Your task to perform on an android device: Search for bose soundlink mini on newegg.com, select the first entry, and add it to the cart. Image 0: 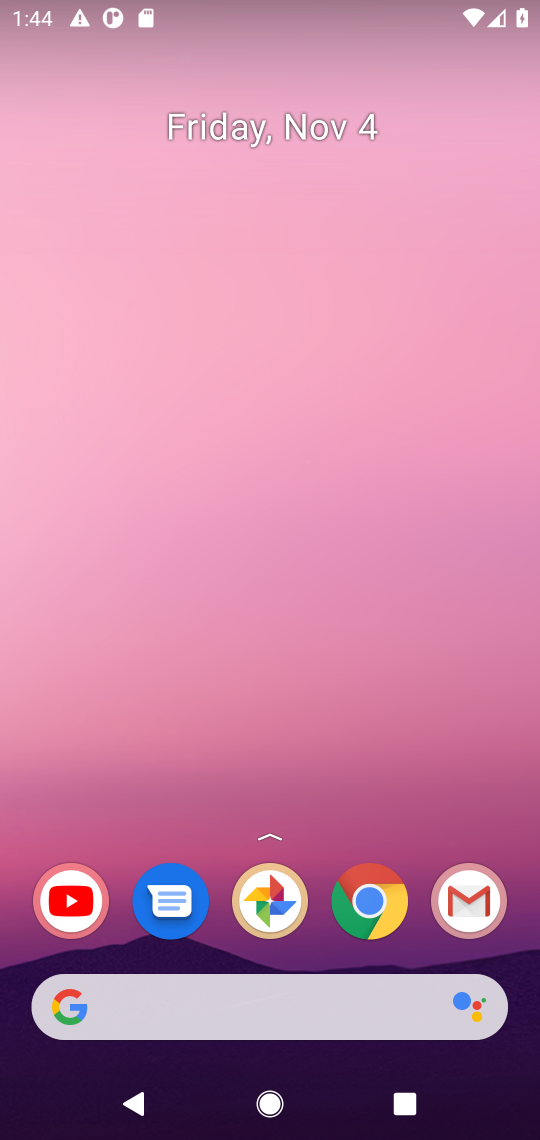
Step 0: click (375, 897)
Your task to perform on an android device: Search for bose soundlink mini on newegg.com, select the first entry, and add it to the cart. Image 1: 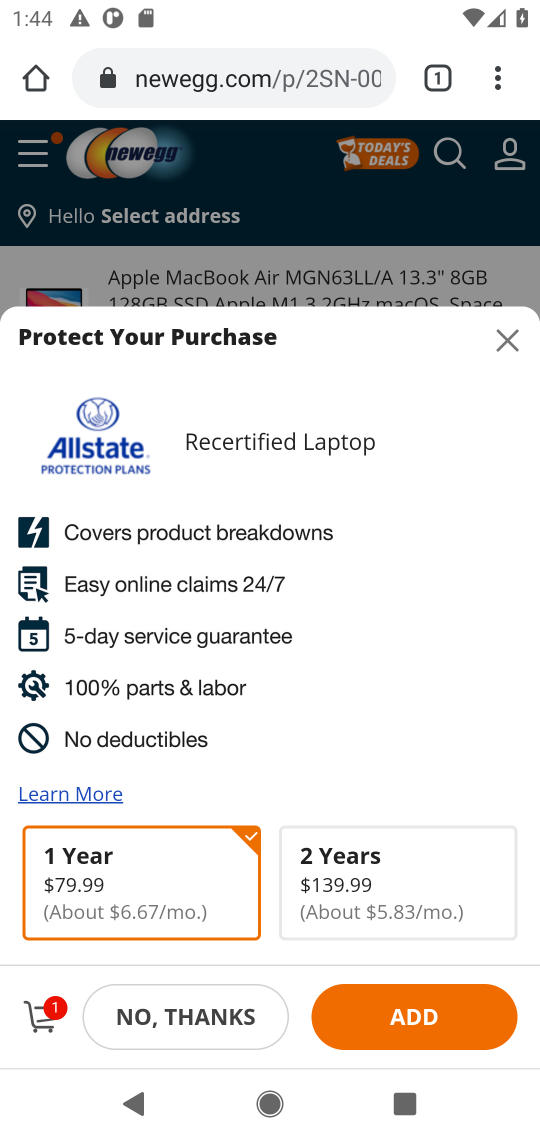
Step 1: click (511, 346)
Your task to perform on an android device: Search for bose soundlink mini on newegg.com, select the first entry, and add it to the cart. Image 2: 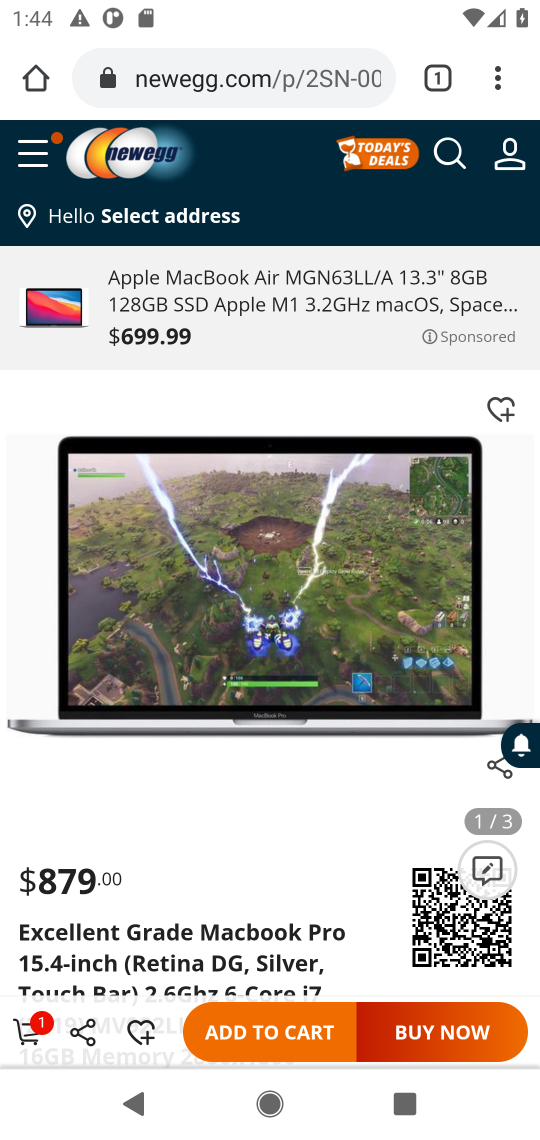
Step 2: drag from (351, 343) to (371, 649)
Your task to perform on an android device: Search for bose soundlink mini on newegg.com, select the first entry, and add it to the cart. Image 3: 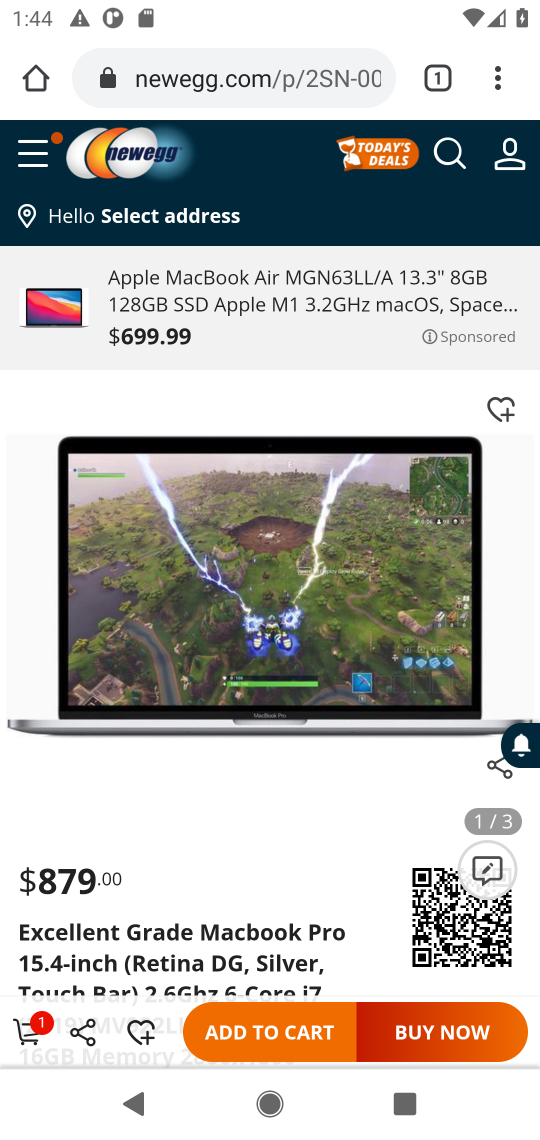
Step 3: click (448, 159)
Your task to perform on an android device: Search for bose soundlink mini on newegg.com, select the first entry, and add it to the cart. Image 4: 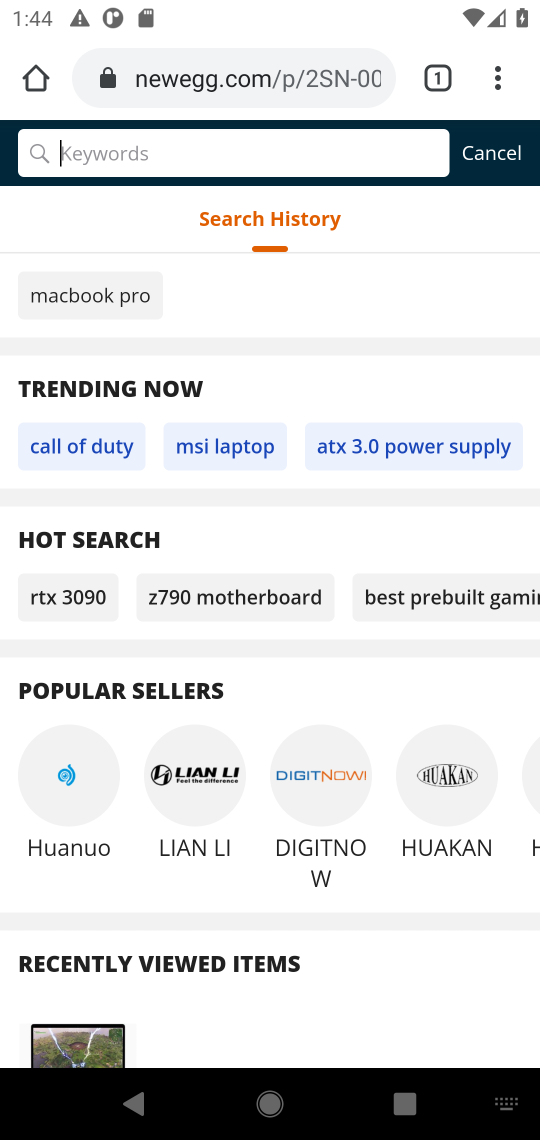
Step 4: type "bose soundlink mini "
Your task to perform on an android device: Search for bose soundlink mini on newegg.com, select the first entry, and add it to the cart. Image 5: 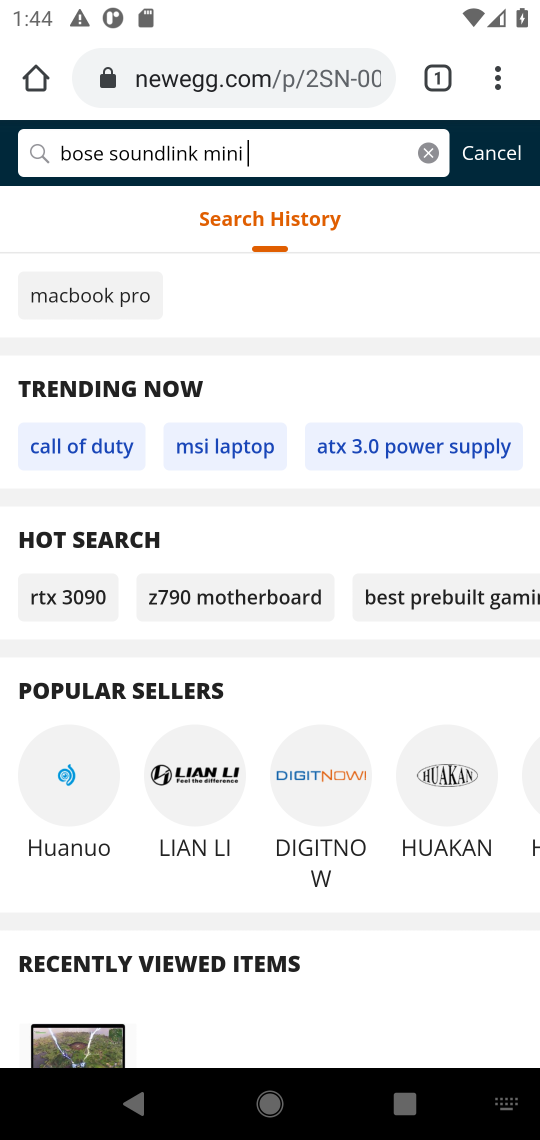
Step 5: press enter
Your task to perform on an android device: Search for bose soundlink mini on newegg.com, select the first entry, and add it to the cart. Image 6: 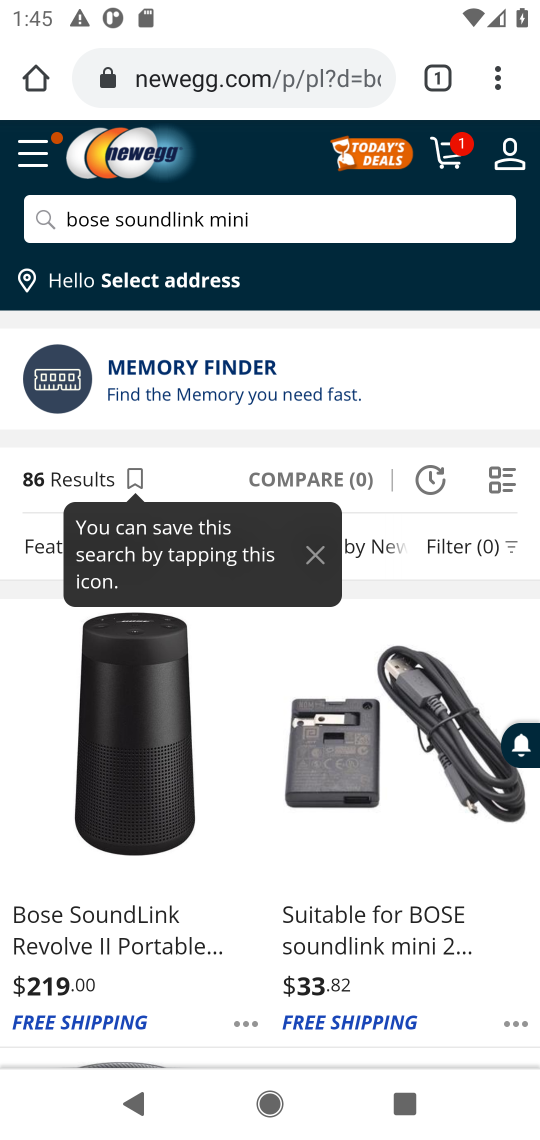
Step 6: drag from (326, 899) to (372, 322)
Your task to perform on an android device: Search for bose soundlink mini on newegg.com, select the first entry, and add it to the cart. Image 7: 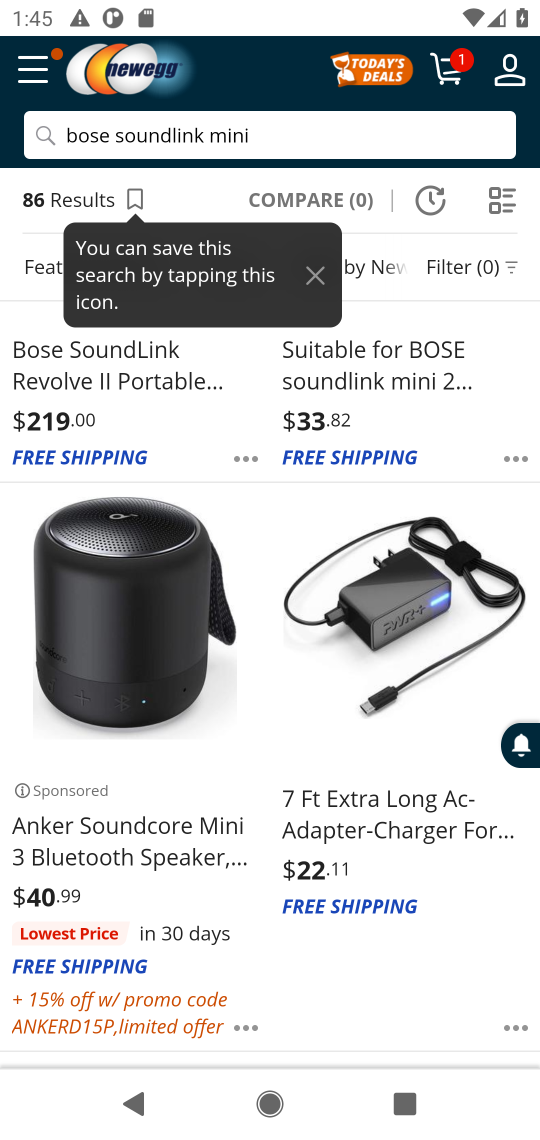
Step 7: drag from (152, 410) to (149, 774)
Your task to perform on an android device: Search for bose soundlink mini on newegg.com, select the first entry, and add it to the cart. Image 8: 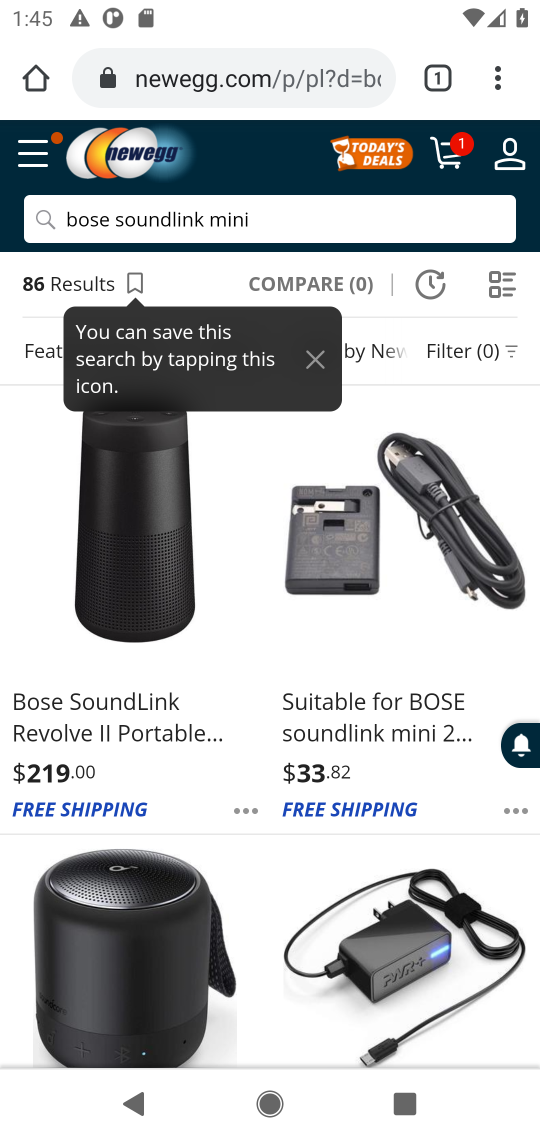
Step 8: click (122, 518)
Your task to perform on an android device: Search for bose soundlink mini on newegg.com, select the first entry, and add it to the cart. Image 9: 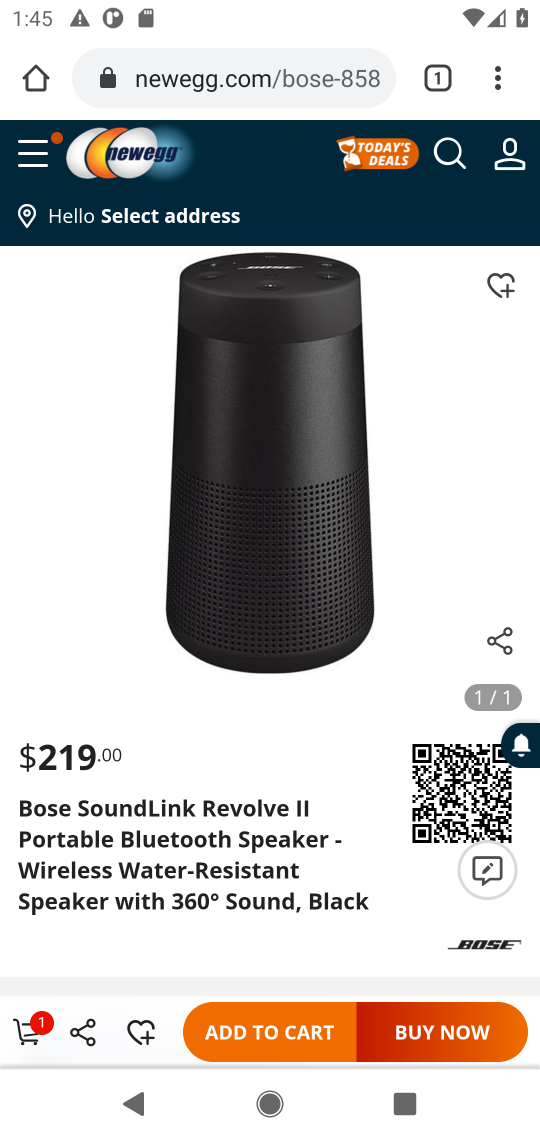
Step 9: click (257, 1027)
Your task to perform on an android device: Search for bose soundlink mini on newegg.com, select the first entry, and add it to the cart. Image 10: 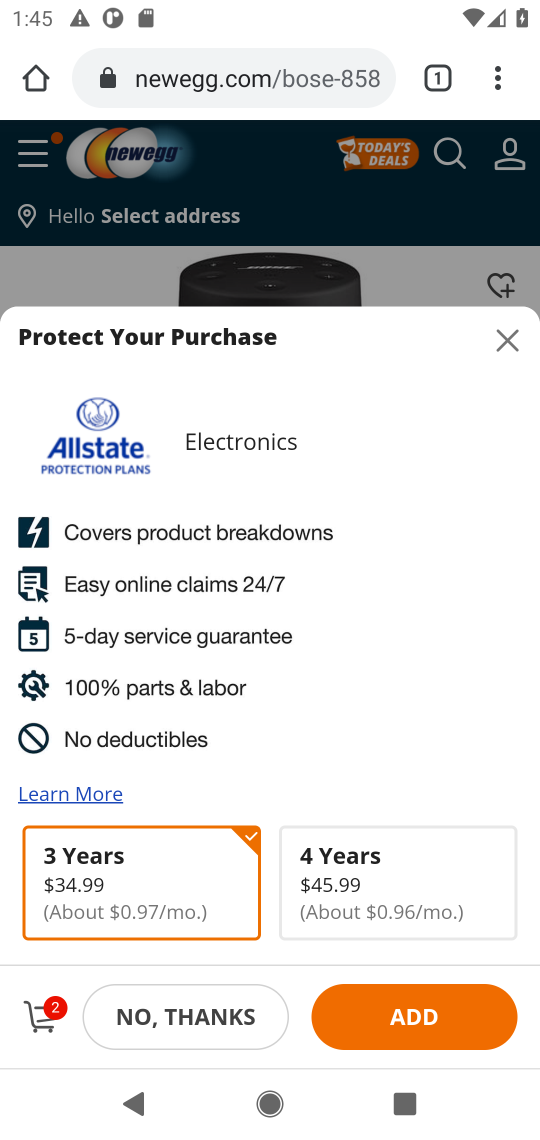
Step 10: task complete